Your task to perform on an android device: Go to Google maps Image 0: 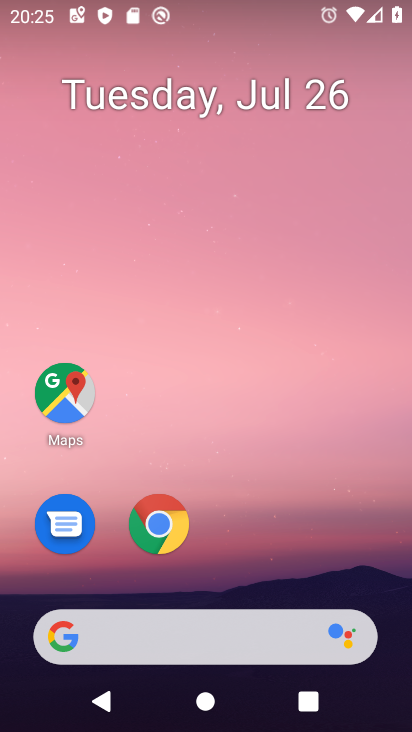
Step 0: click (43, 402)
Your task to perform on an android device: Go to Google maps Image 1: 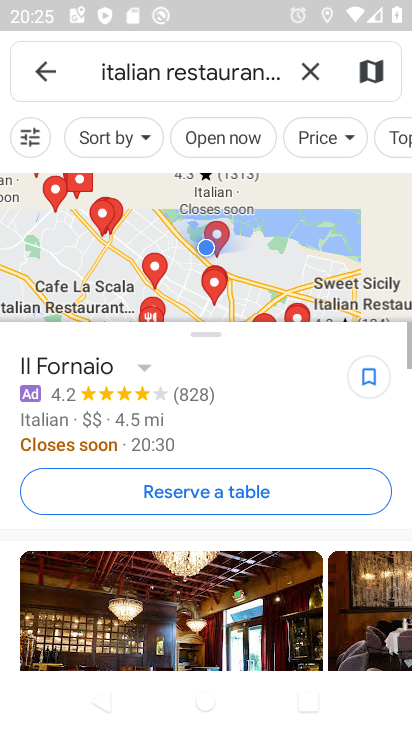
Step 1: click (44, 66)
Your task to perform on an android device: Go to Google maps Image 2: 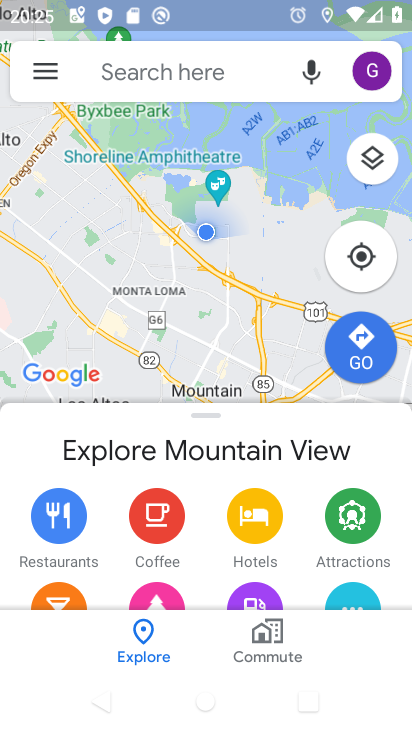
Step 2: task complete